Your task to perform on an android device: Open Yahoo.com Image 0: 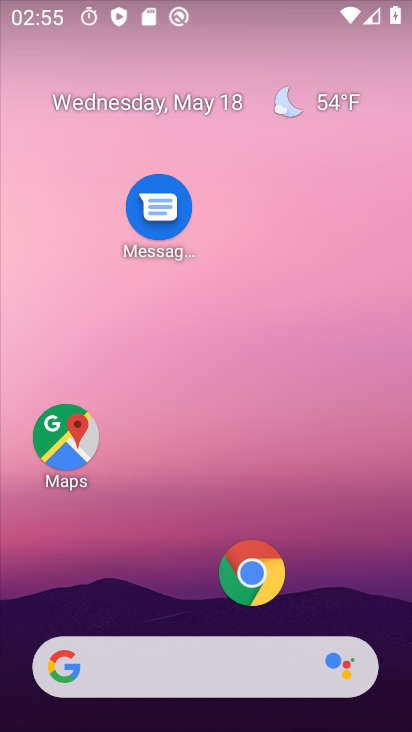
Step 0: click (256, 580)
Your task to perform on an android device: Open Yahoo.com Image 1: 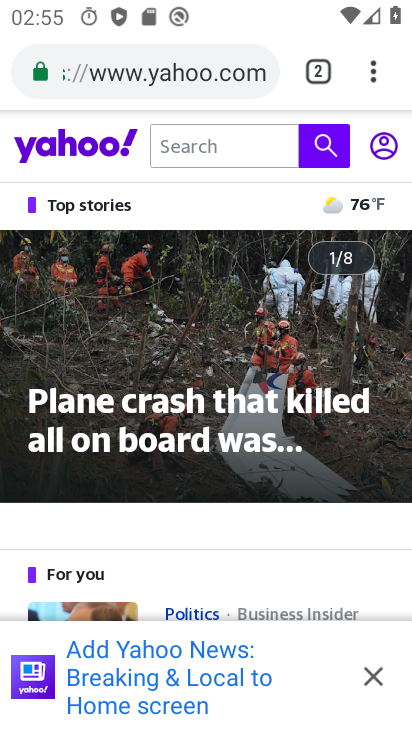
Step 1: task complete